Your task to perform on an android device: turn pop-ups on in chrome Image 0: 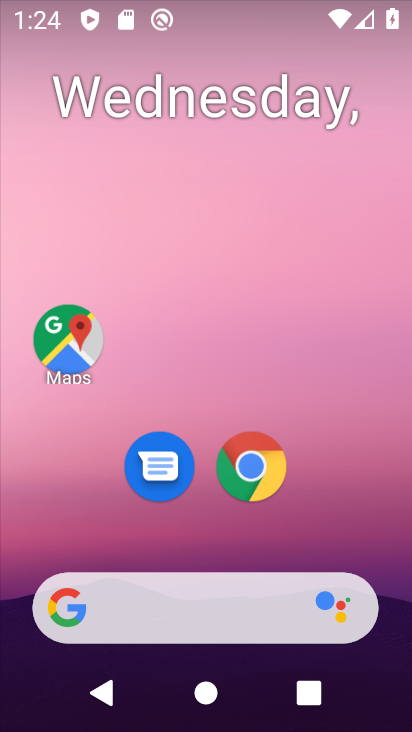
Step 0: click (250, 480)
Your task to perform on an android device: turn pop-ups on in chrome Image 1: 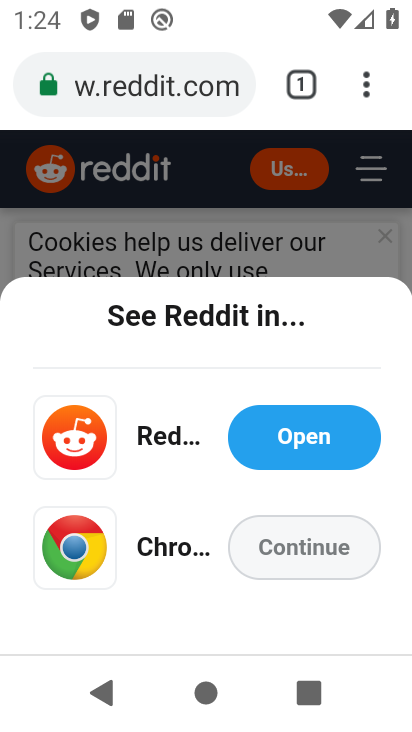
Step 1: click (368, 80)
Your task to perform on an android device: turn pop-ups on in chrome Image 2: 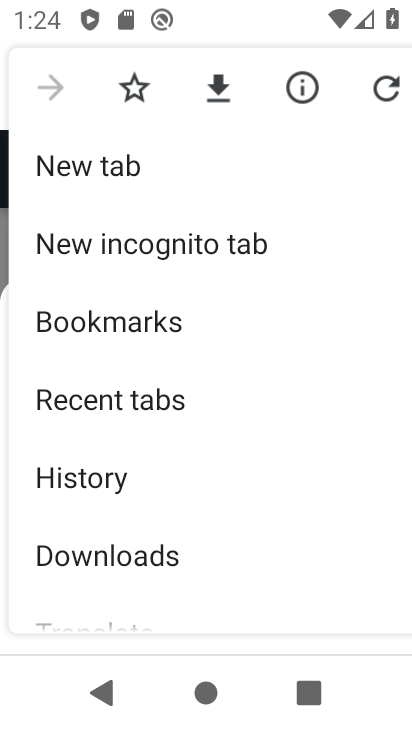
Step 2: drag from (113, 567) to (198, 144)
Your task to perform on an android device: turn pop-ups on in chrome Image 3: 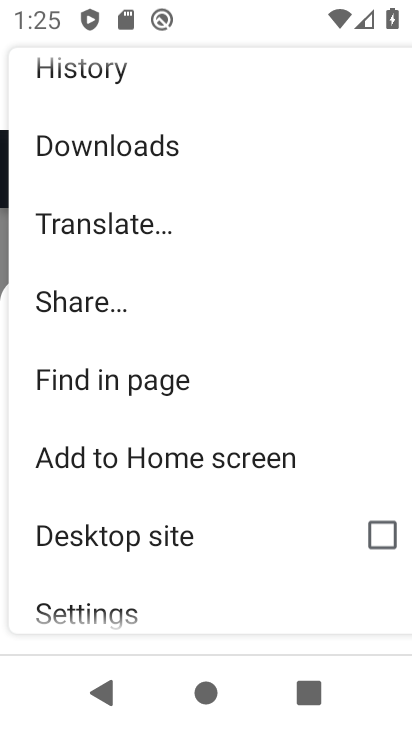
Step 3: click (99, 607)
Your task to perform on an android device: turn pop-ups on in chrome Image 4: 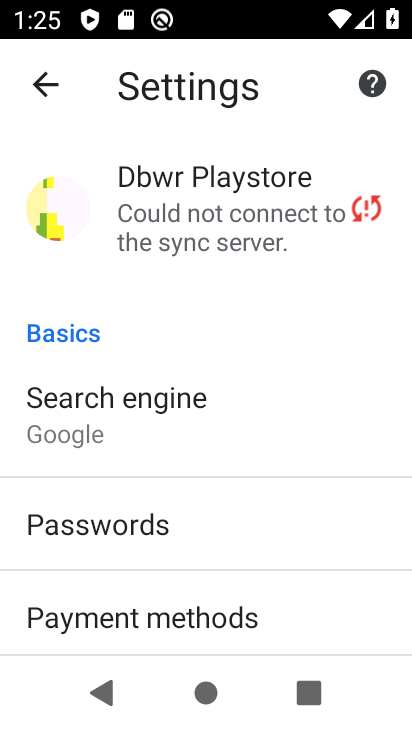
Step 4: drag from (183, 462) to (206, 288)
Your task to perform on an android device: turn pop-ups on in chrome Image 5: 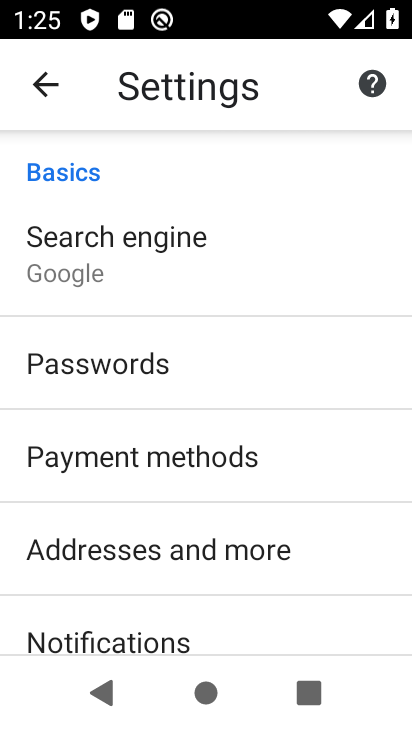
Step 5: drag from (110, 535) to (192, 253)
Your task to perform on an android device: turn pop-ups on in chrome Image 6: 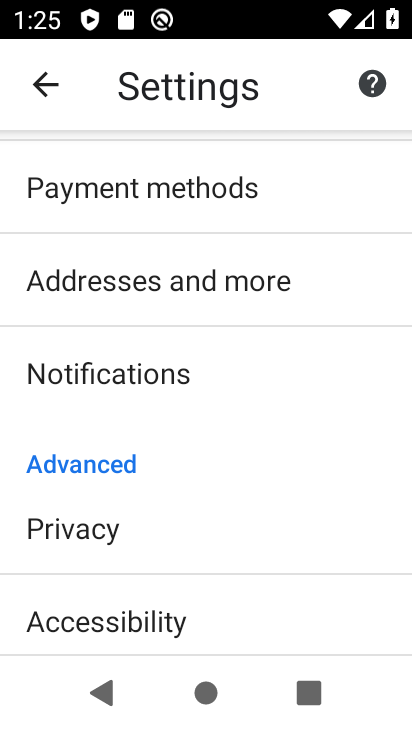
Step 6: drag from (128, 556) to (161, 285)
Your task to perform on an android device: turn pop-ups on in chrome Image 7: 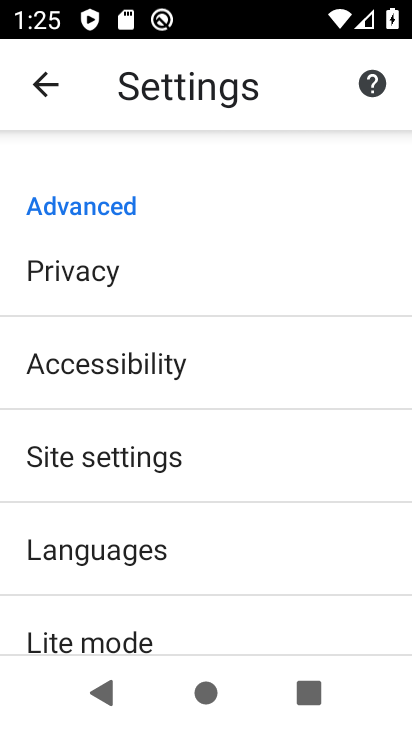
Step 7: click (97, 461)
Your task to perform on an android device: turn pop-ups on in chrome Image 8: 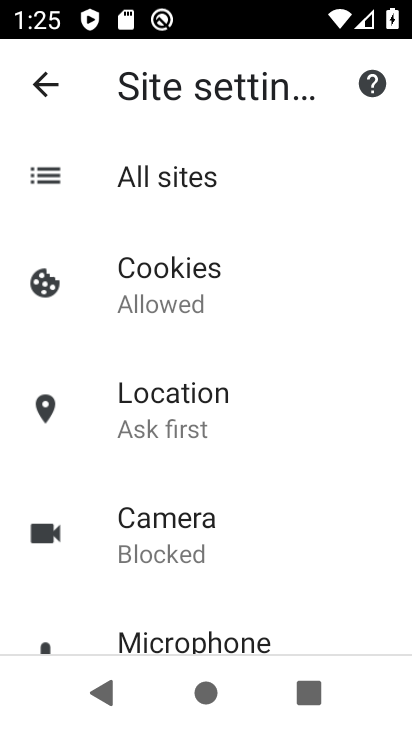
Step 8: drag from (218, 495) to (252, 226)
Your task to perform on an android device: turn pop-ups on in chrome Image 9: 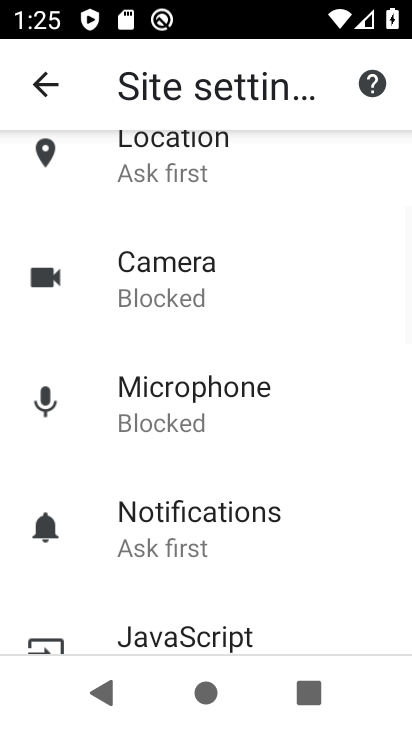
Step 9: drag from (238, 498) to (253, 340)
Your task to perform on an android device: turn pop-ups on in chrome Image 10: 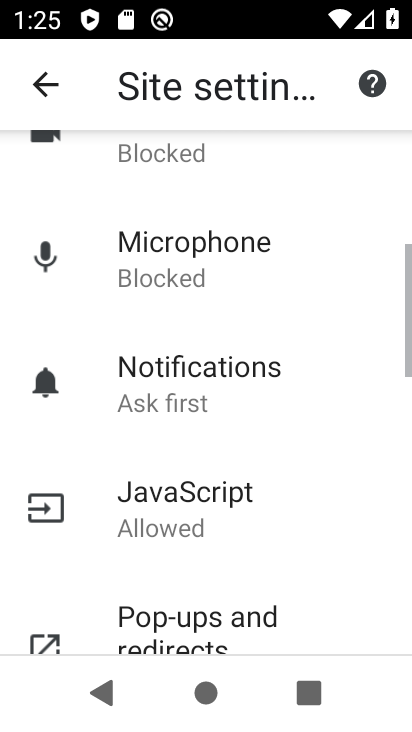
Step 10: click (187, 618)
Your task to perform on an android device: turn pop-ups on in chrome Image 11: 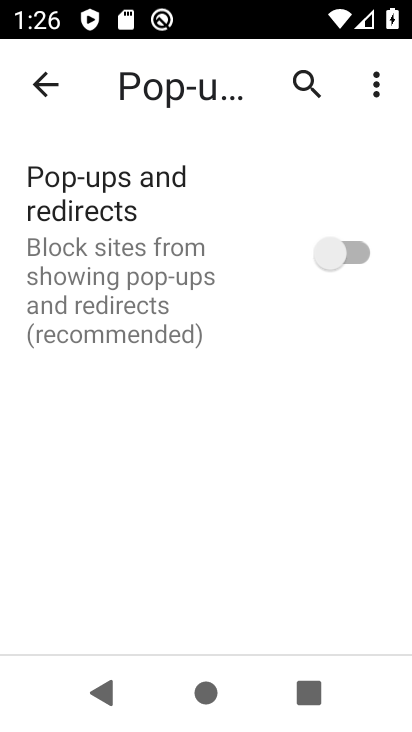
Step 11: click (326, 259)
Your task to perform on an android device: turn pop-ups on in chrome Image 12: 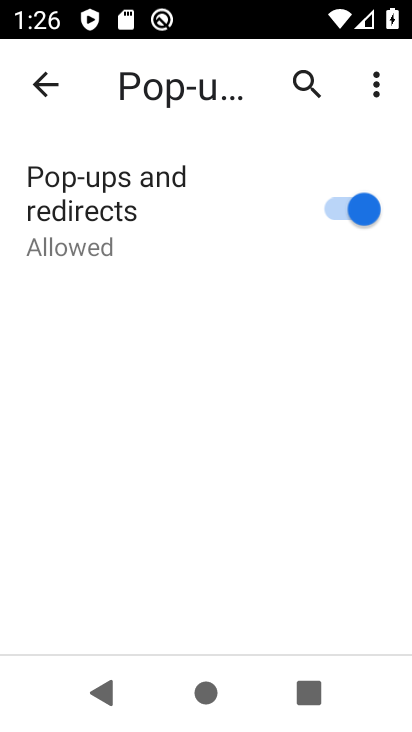
Step 12: task complete